Your task to perform on an android device: Open Google Chrome and click the shortcut for Amazon.com Image 0: 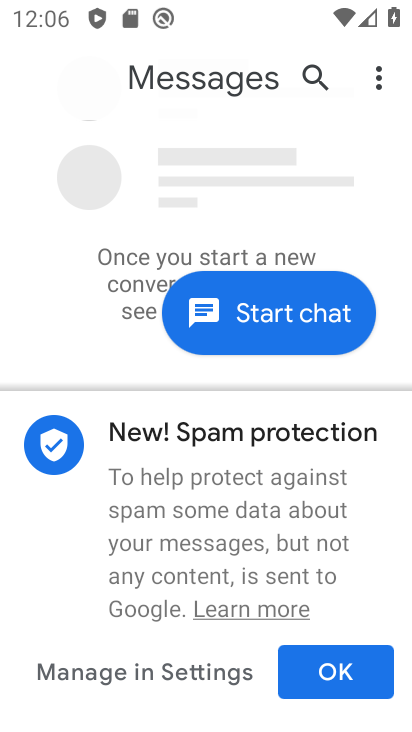
Step 0: press home button
Your task to perform on an android device: Open Google Chrome and click the shortcut for Amazon.com Image 1: 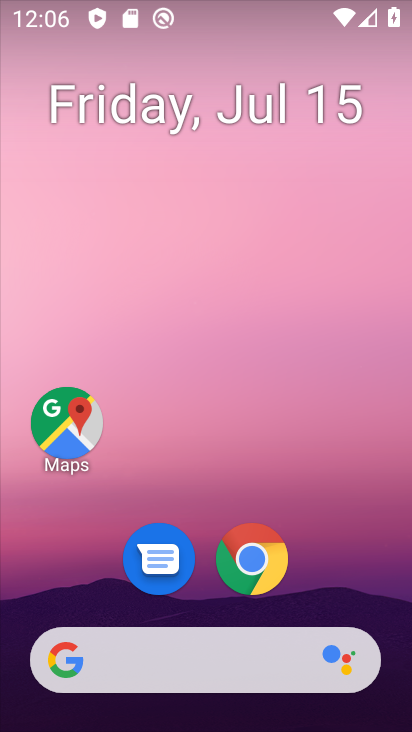
Step 1: drag from (351, 580) to (367, 174)
Your task to perform on an android device: Open Google Chrome and click the shortcut for Amazon.com Image 2: 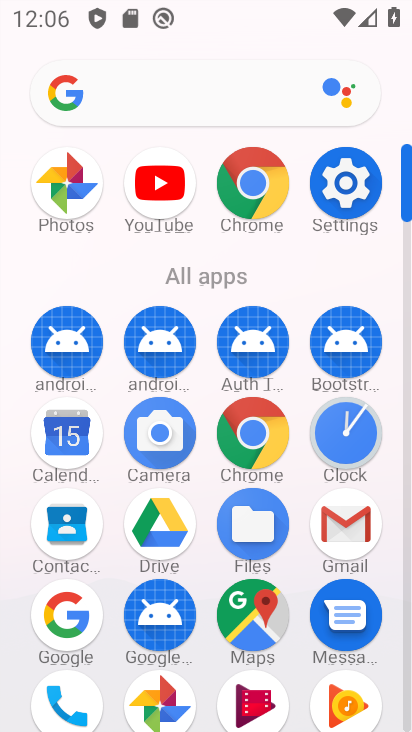
Step 2: click (261, 201)
Your task to perform on an android device: Open Google Chrome and click the shortcut for Amazon.com Image 3: 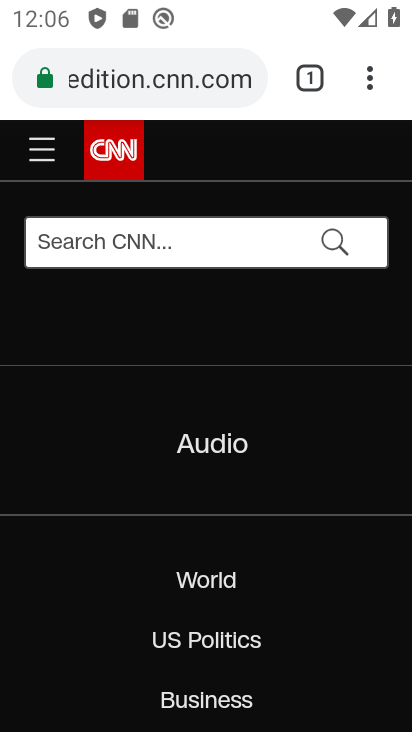
Step 3: press back button
Your task to perform on an android device: Open Google Chrome and click the shortcut for Amazon.com Image 4: 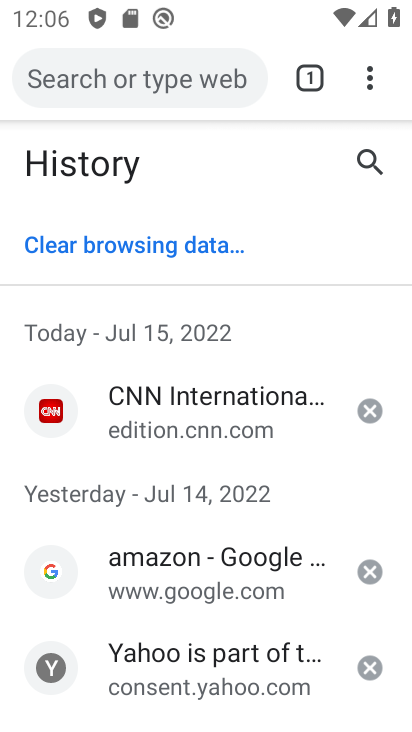
Step 4: press back button
Your task to perform on an android device: Open Google Chrome and click the shortcut for Amazon.com Image 5: 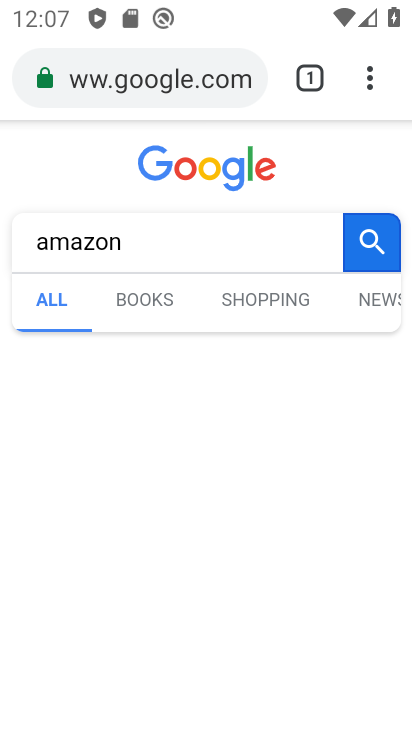
Step 5: press back button
Your task to perform on an android device: Open Google Chrome and click the shortcut for Amazon.com Image 6: 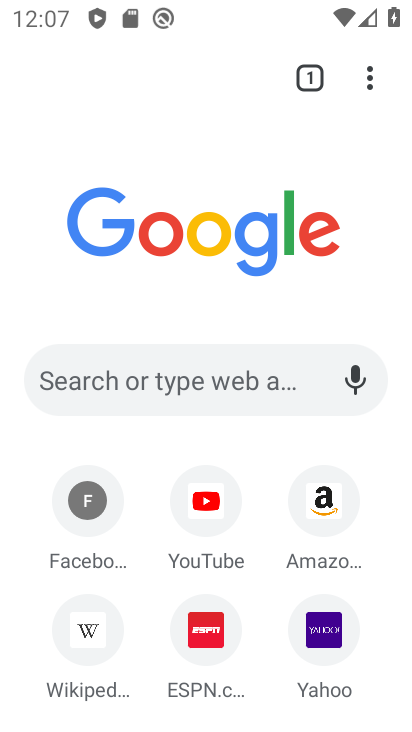
Step 6: click (320, 513)
Your task to perform on an android device: Open Google Chrome and click the shortcut for Amazon.com Image 7: 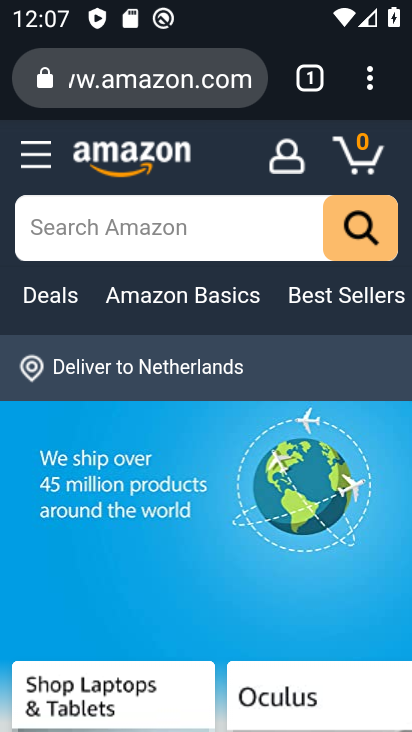
Step 7: task complete